Your task to perform on an android device: open chrome and create a bookmark for the current page Image 0: 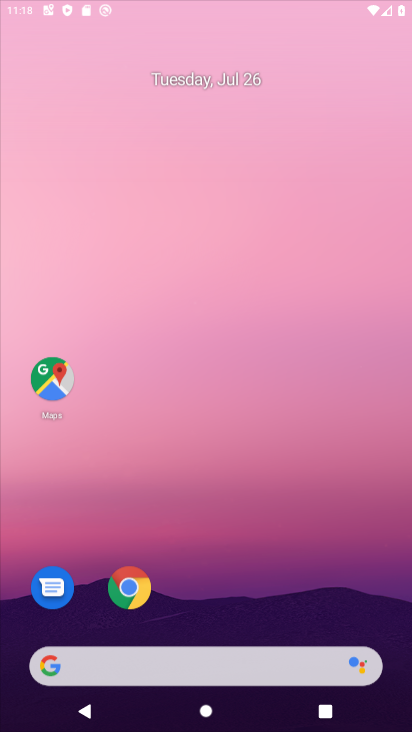
Step 0: drag from (262, 213) to (241, 90)
Your task to perform on an android device: open chrome and create a bookmark for the current page Image 1: 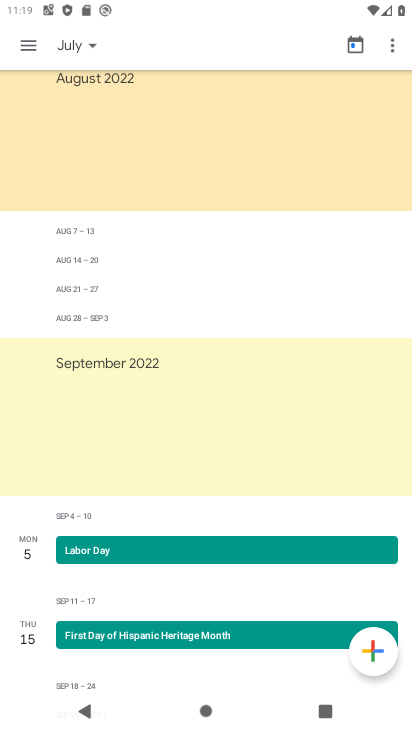
Step 1: press home button
Your task to perform on an android device: open chrome and create a bookmark for the current page Image 2: 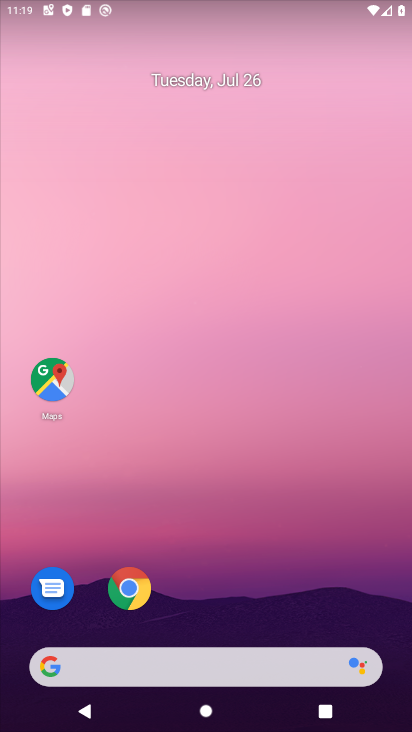
Step 2: drag from (215, 599) to (216, 54)
Your task to perform on an android device: open chrome and create a bookmark for the current page Image 3: 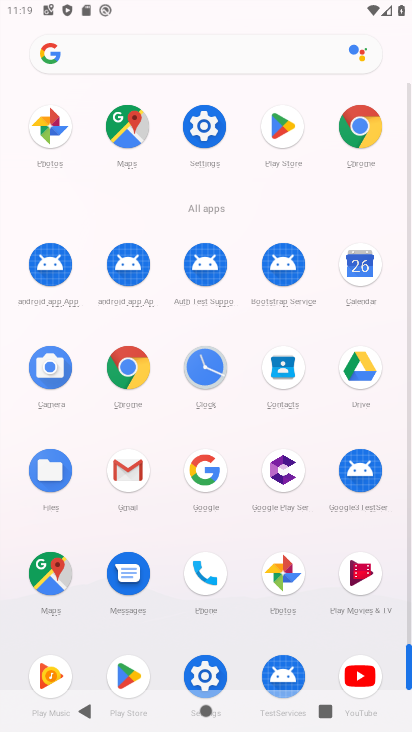
Step 3: click (132, 370)
Your task to perform on an android device: open chrome and create a bookmark for the current page Image 4: 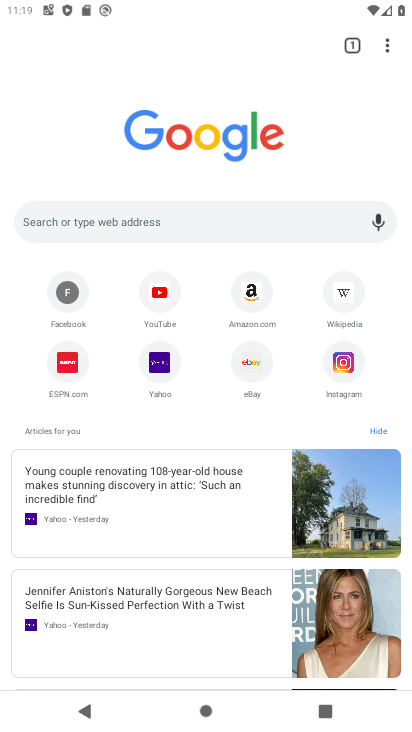
Step 4: task complete